Your task to perform on an android device: Search for Italian restaurants on Maps Image 0: 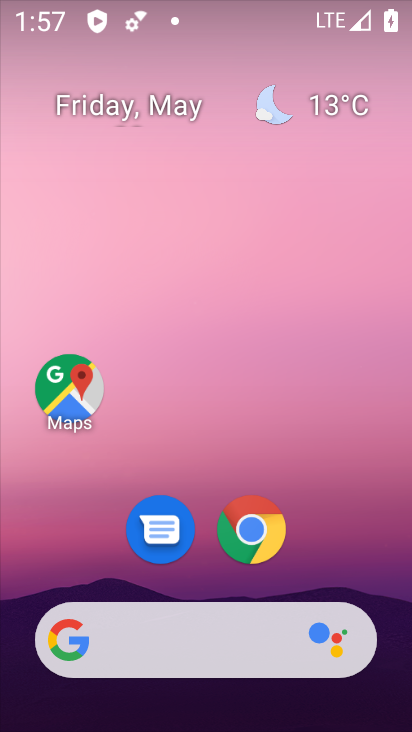
Step 0: drag from (364, 525) to (303, 187)
Your task to perform on an android device: Search for Italian restaurants on Maps Image 1: 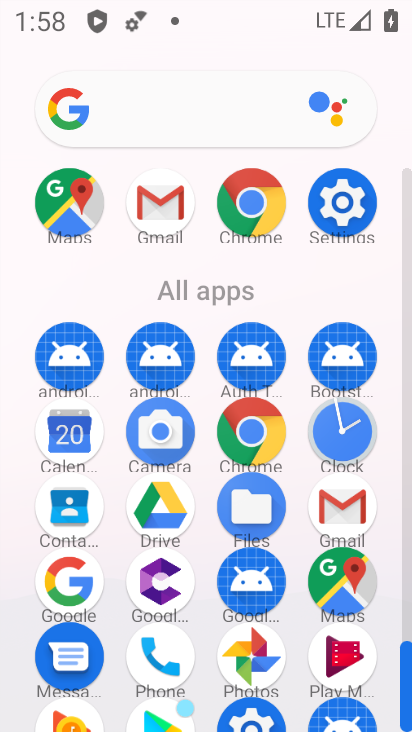
Step 1: click (343, 587)
Your task to perform on an android device: Search for Italian restaurants on Maps Image 2: 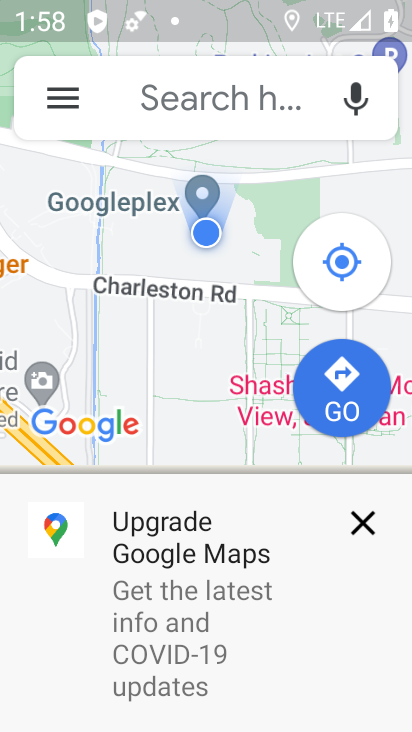
Step 2: click (361, 520)
Your task to perform on an android device: Search for Italian restaurants on Maps Image 3: 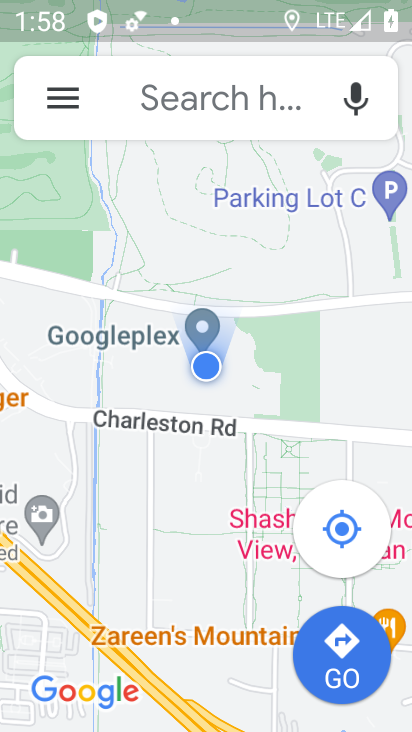
Step 3: click (244, 102)
Your task to perform on an android device: Search for Italian restaurants on Maps Image 4: 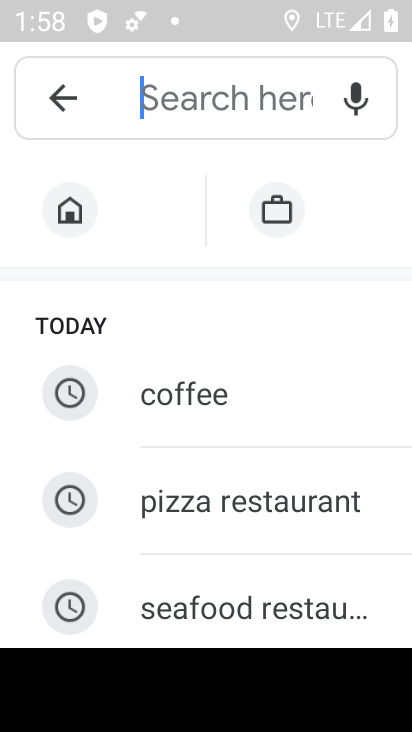
Step 4: type "italian restaurants "
Your task to perform on an android device: Search for Italian restaurants on Maps Image 5: 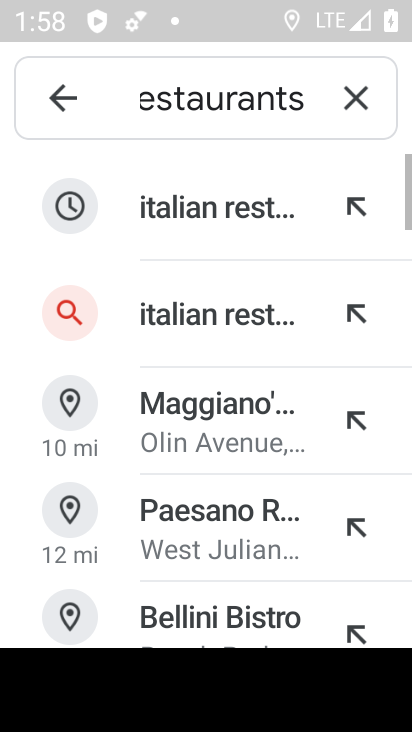
Step 5: click (218, 202)
Your task to perform on an android device: Search for Italian restaurants on Maps Image 6: 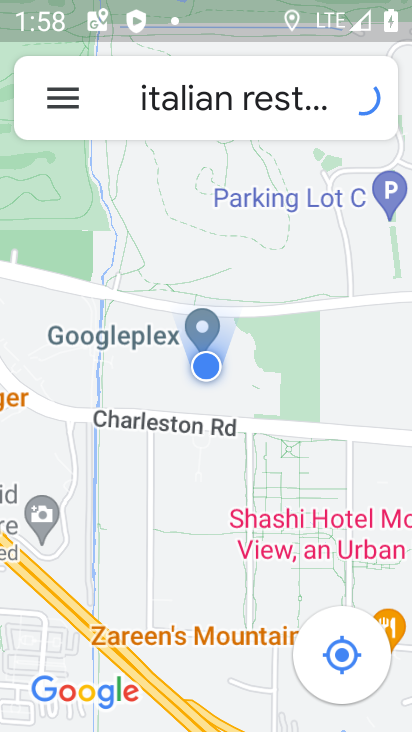
Step 6: task complete